Your task to perform on an android device: Show me the alarms in the clock app Image 0: 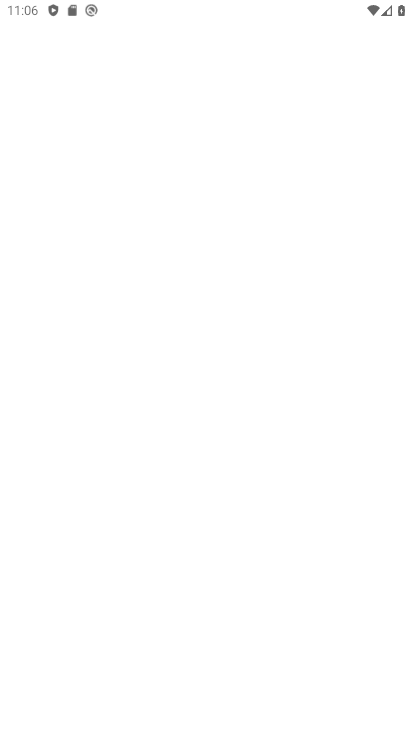
Step 0: press back button
Your task to perform on an android device: Show me the alarms in the clock app Image 1: 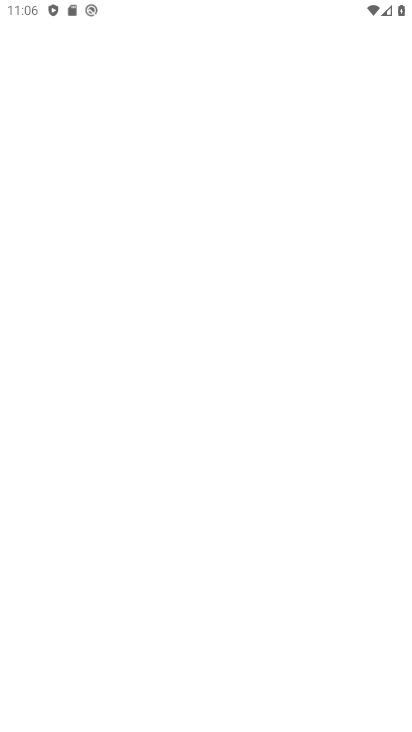
Step 1: press back button
Your task to perform on an android device: Show me the alarms in the clock app Image 2: 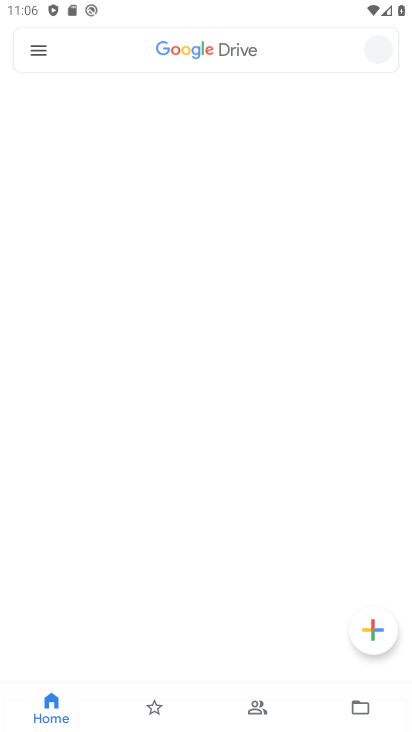
Step 2: press back button
Your task to perform on an android device: Show me the alarms in the clock app Image 3: 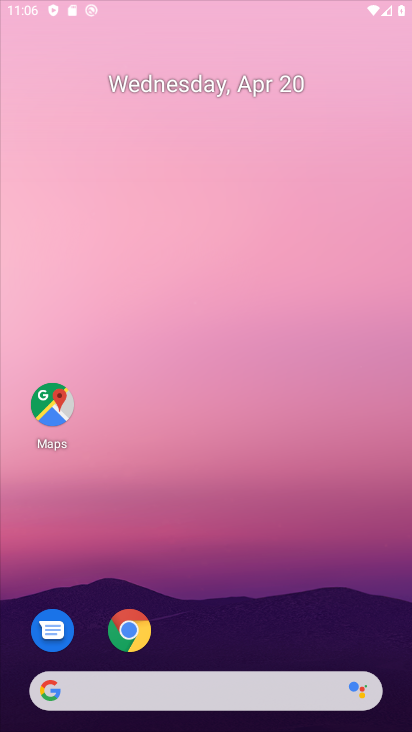
Step 3: press back button
Your task to perform on an android device: Show me the alarms in the clock app Image 4: 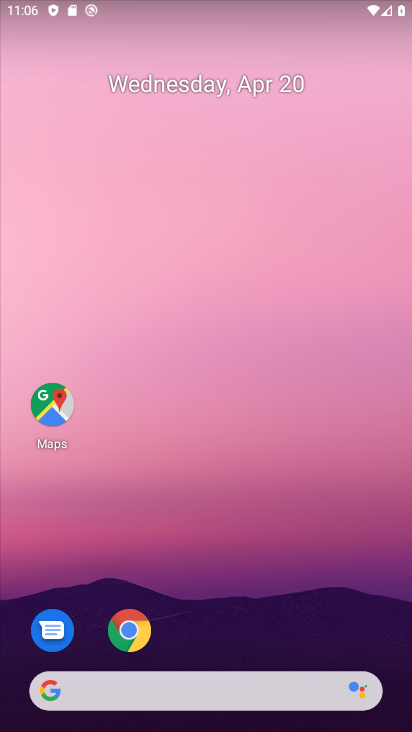
Step 4: drag from (247, 560) to (382, 46)
Your task to perform on an android device: Show me the alarms in the clock app Image 5: 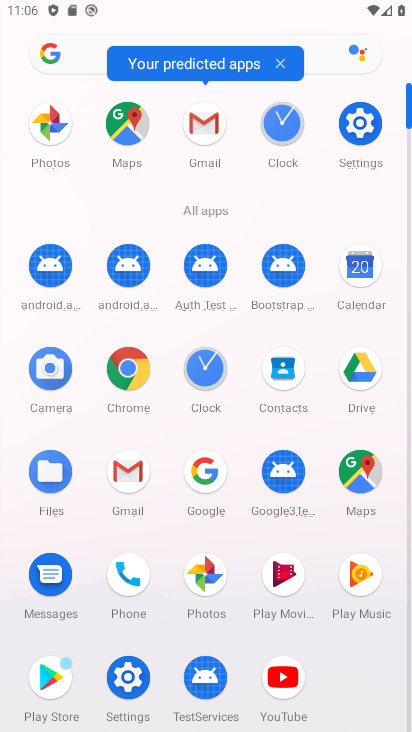
Step 5: click (204, 368)
Your task to perform on an android device: Show me the alarms in the clock app Image 6: 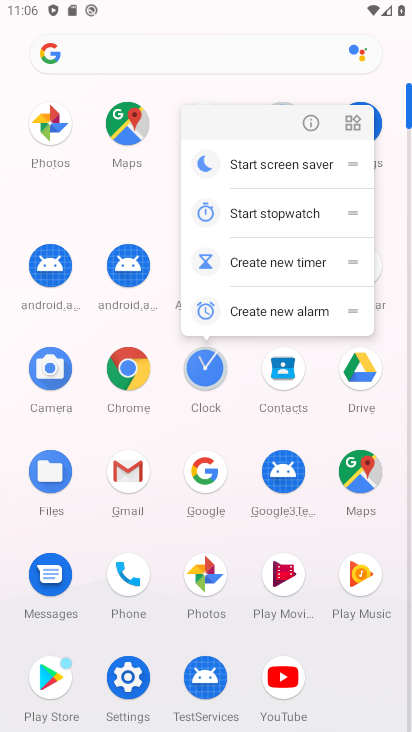
Step 6: click (196, 390)
Your task to perform on an android device: Show me the alarms in the clock app Image 7: 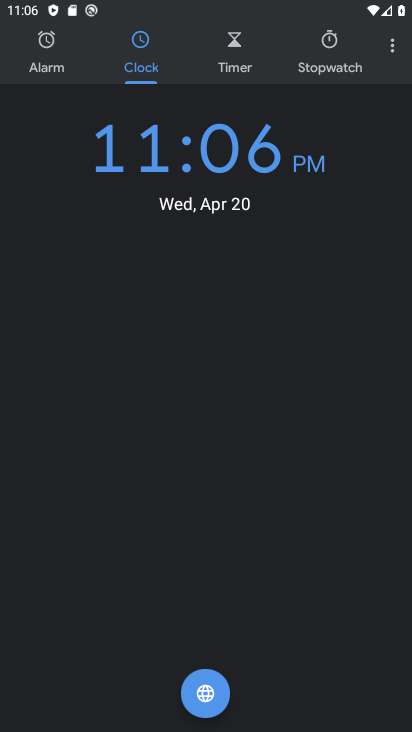
Step 7: click (28, 53)
Your task to perform on an android device: Show me the alarms in the clock app Image 8: 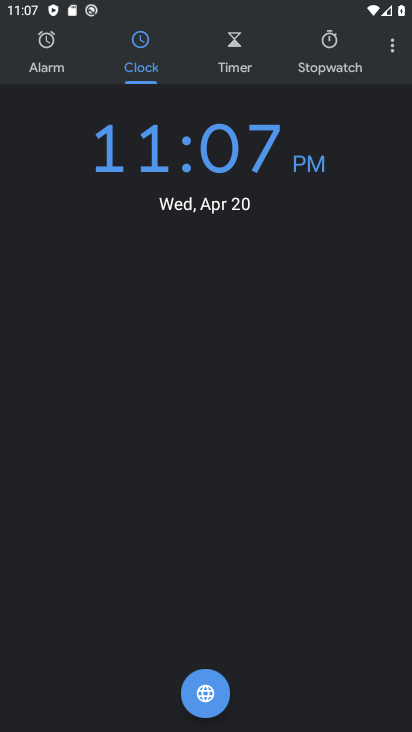
Step 8: click (46, 37)
Your task to perform on an android device: Show me the alarms in the clock app Image 9: 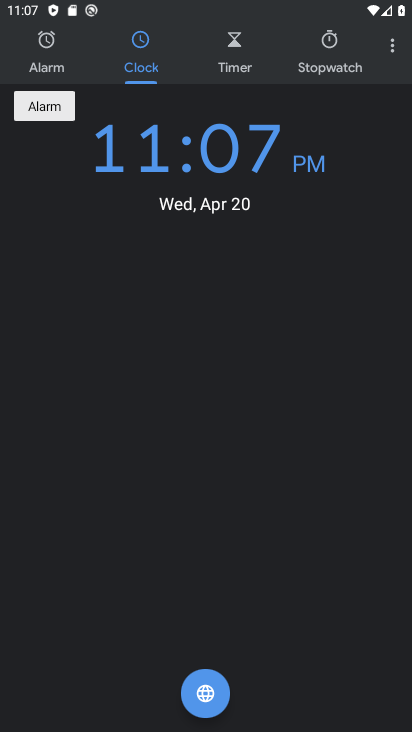
Step 9: click (37, 52)
Your task to perform on an android device: Show me the alarms in the clock app Image 10: 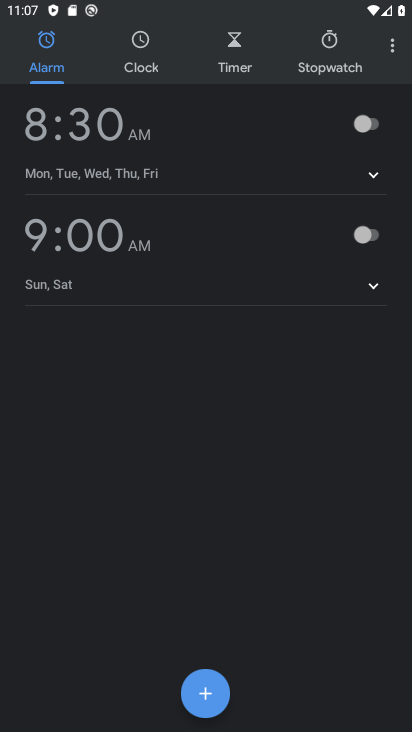
Step 10: task complete